Your task to perform on an android device: toggle javascript in the chrome app Image 0: 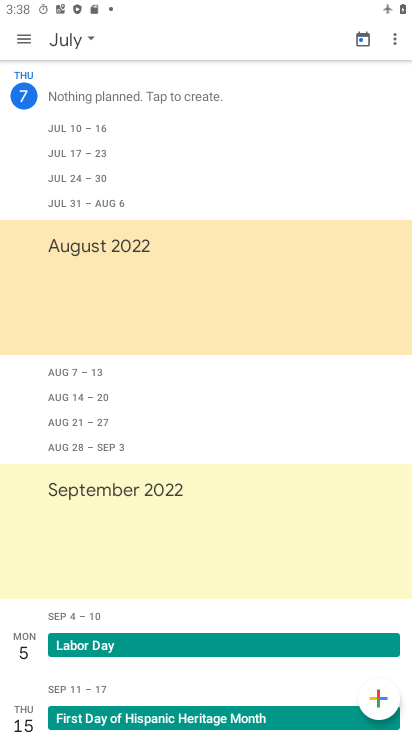
Step 0: press home button
Your task to perform on an android device: toggle javascript in the chrome app Image 1: 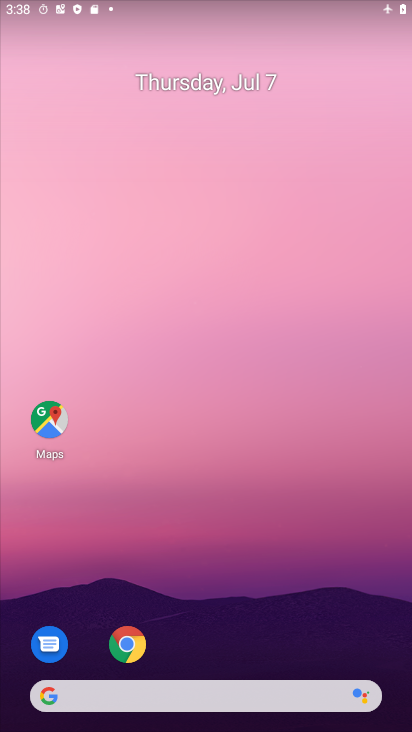
Step 1: drag from (239, 331) to (246, 265)
Your task to perform on an android device: toggle javascript in the chrome app Image 2: 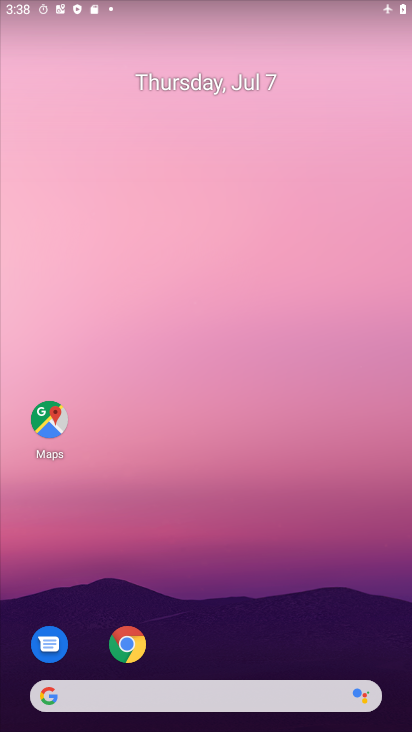
Step 2: drag from (219, 639) to (232, 16)
Your task to perform on an android device: toggle javascript in the chrome app Image 3: 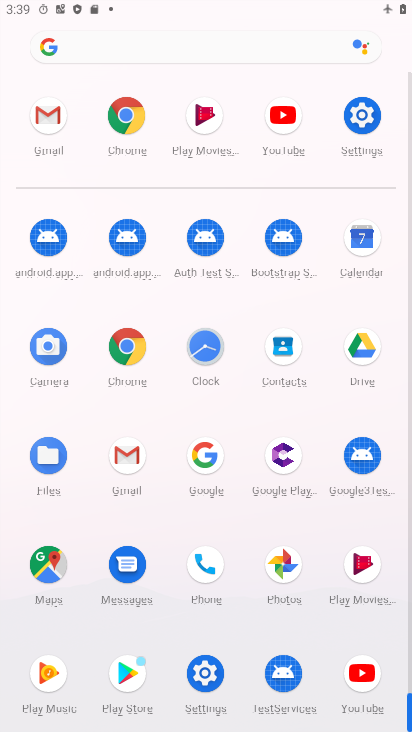
Step 3: click (121, 121)
Your task to perform on an android device: toggle javascript in the chrome app Image 4: 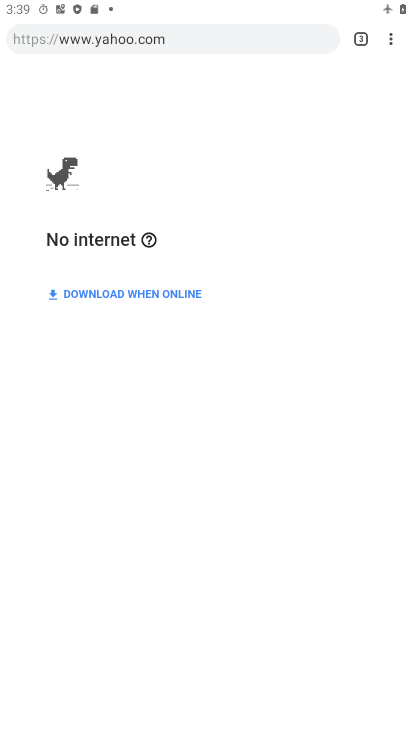
Step 4: click (390, 35)
Your task to perform on an android device: toggle javascript in the chrome app Image 5: 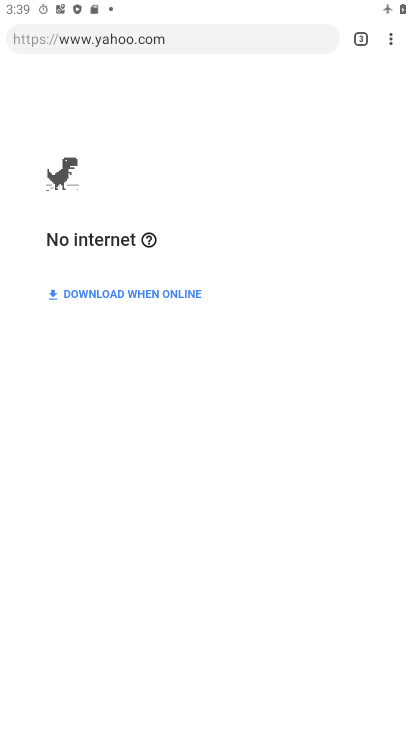
Step 5: click (395, 40)
Your task to perform on an android device: toggle javascript in the chrome app Image 6: 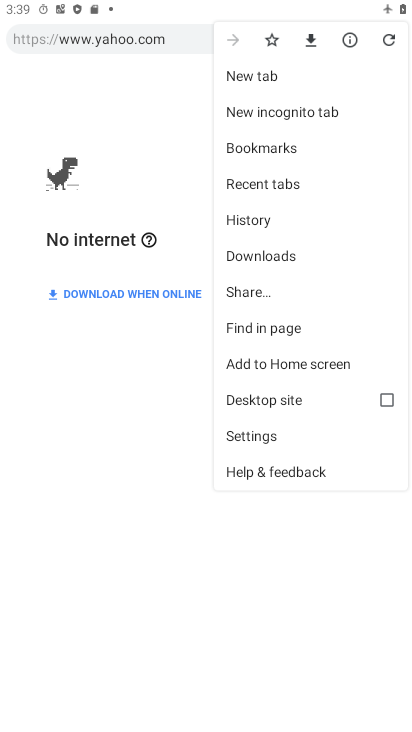
Step 6: click (277, 444)
Your task to perform on an android device: toggle javascript in the chrome app Image 7: 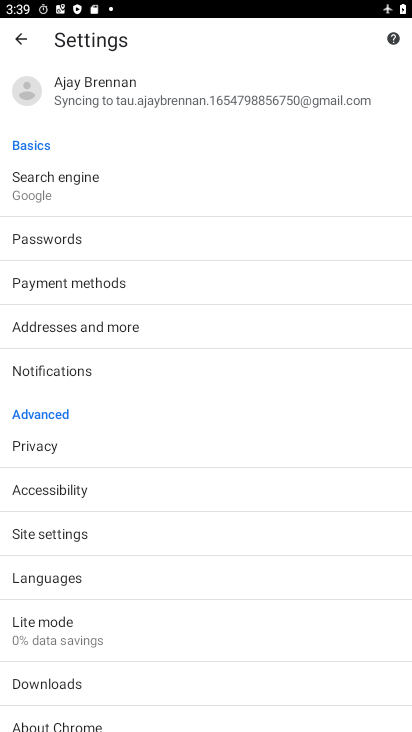
Step 7: drag from (232, 455) to (175, 62)
Your task to perform on an android device: toggle javascript in the chrome app Image 8: 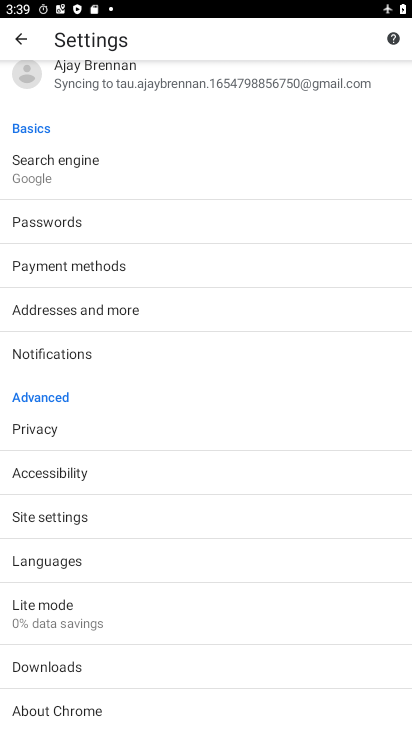
Step 8: click (50, 530)
Your task to perform on an android device: toggle javascript in the chrome app Image 9: 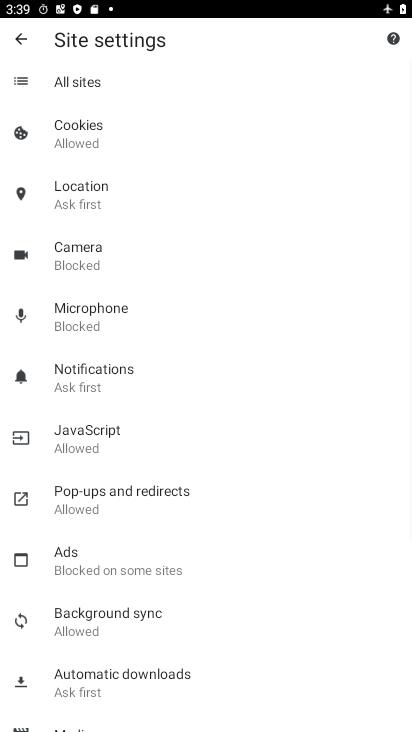
Step 9: click (107, 451)
Your task to perform on an android device: toggle javascript in the chrome app Image 10: 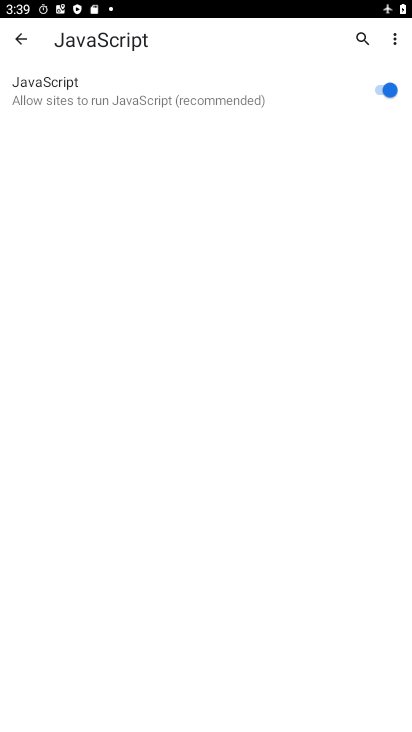
Step 10: click (373, 90)
Your task to perform on an android device: toggle javascript in the chrome app Image 11: 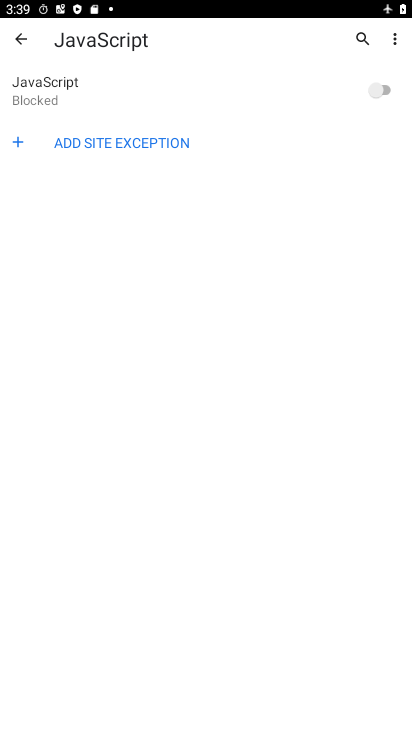
Step 11: task complete